Your task to perform on an android device: change the clock display to digital Image 0: 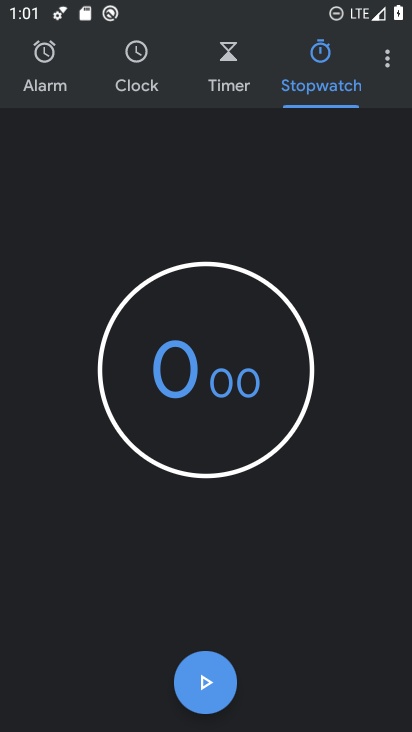
Step 0: click (389, 66)
Your task to perform on an android device: change the clock display to digital Image 1: 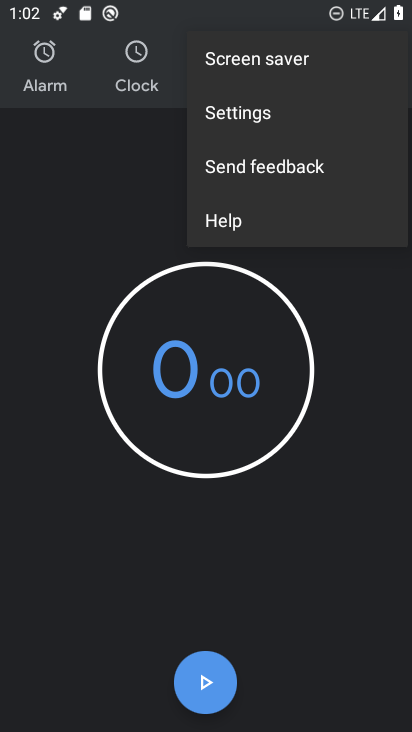
Step 1: click (251, 109)
Your task to perform on an android device: change the clock display to digital Image 2: 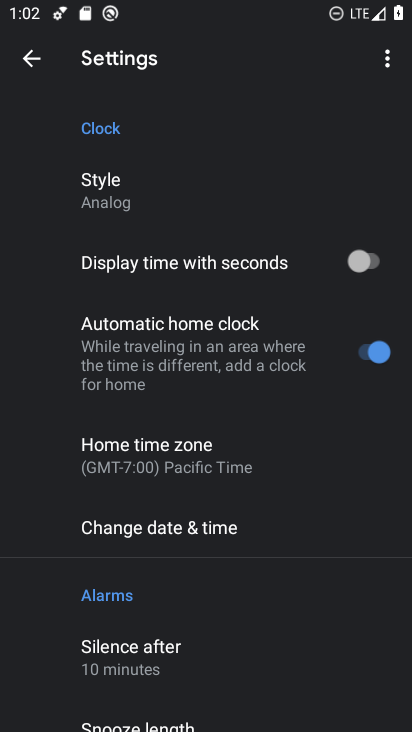
Step 2: drag from (132, 673) to (117, 446)
Your task to perform on an android device: change the clock display to digital Image 3: 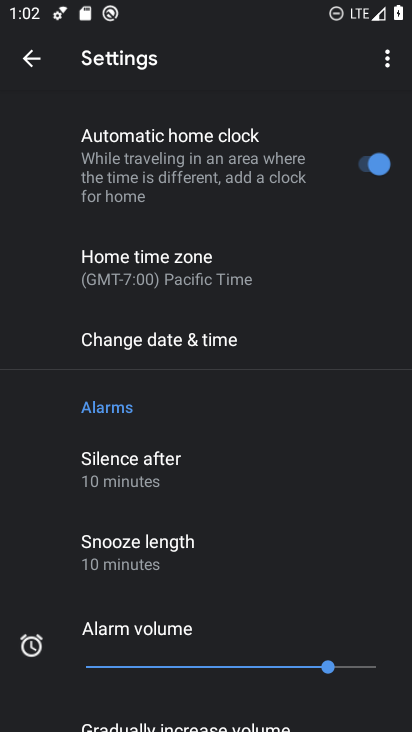
Step 3: drag from (204, 109) to (169, 518)
Your task to perform on an android device: change the clock display to digital Image 4: 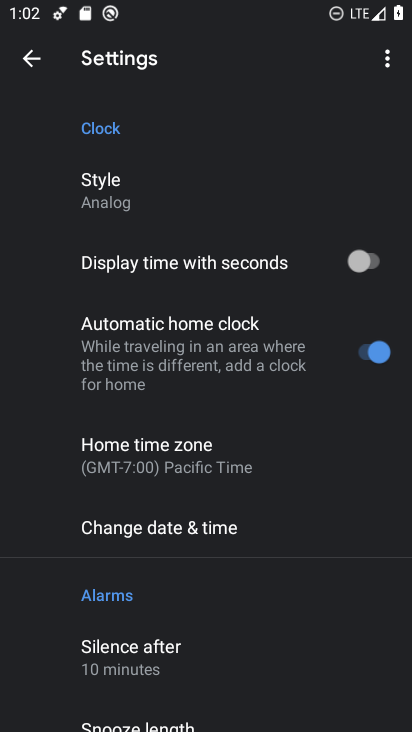
Step 4: click (109, 190)
Your task to perform on an android device: change the clock display to digital Image 5: 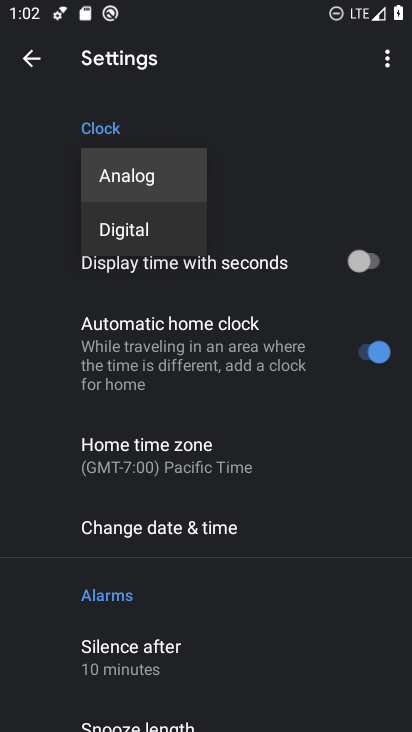
Step 5: click (127, 227)
Your task to perform on an android device: change the clock display to digital Image 6: 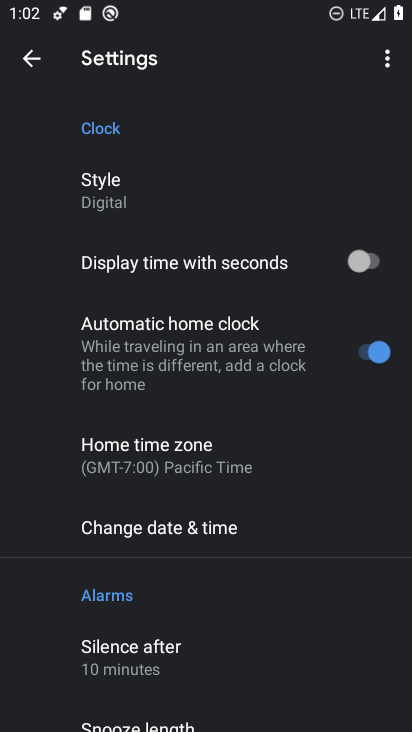
Step 6: task complete